Your task to perform on an android device: Open calendar and show me the fourth week of next month Image 0: 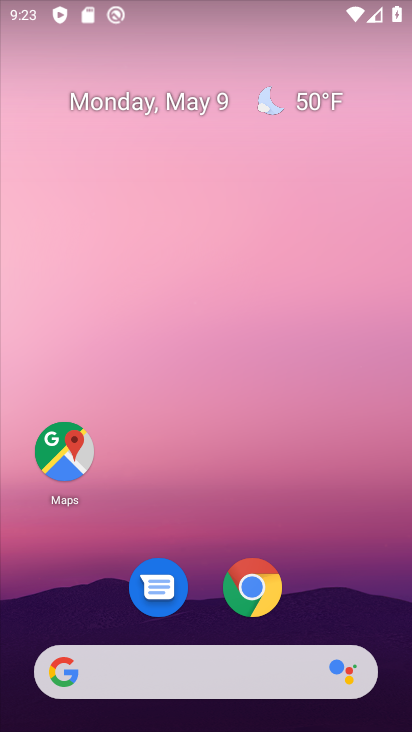
Step 0: drag from (201, 729) to (207, 71)
Your task to perform on an android device: Open calendar and show me the fourth week of next month Image 1: 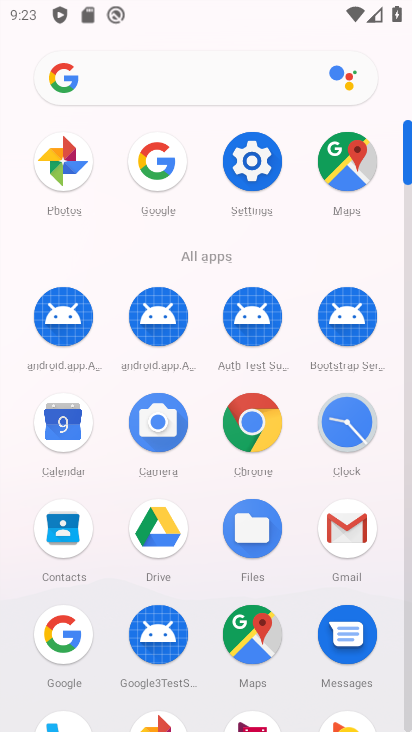
Step 1: click (67, 421)
Your task to perform on an android device: Open calendar and show me the fourth week of next month Image 2: 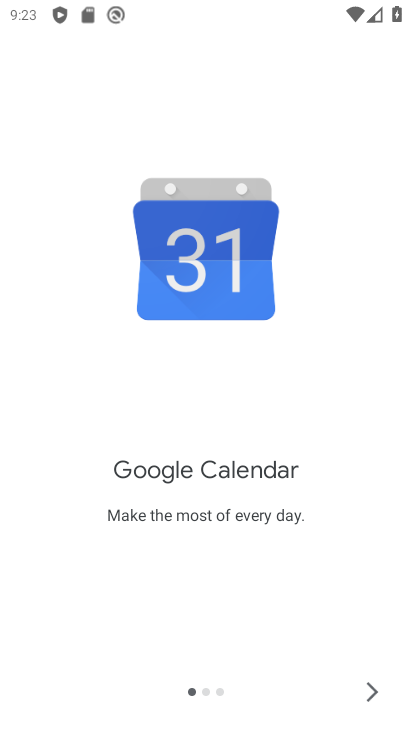
Step 2: click (377, 694)
Your task to perform on an android device: Open calendar and show me the fourth week of next month Image 3: 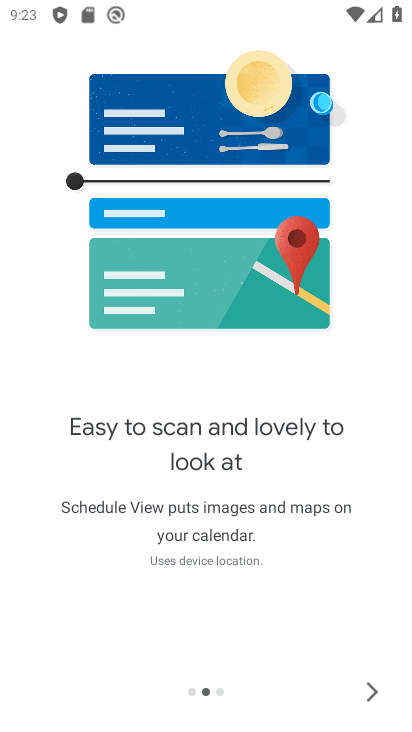
Step 3: click (374, 694)
Your task to perform on an android device: Open calendar and show me the fourth week of next month Image 4: 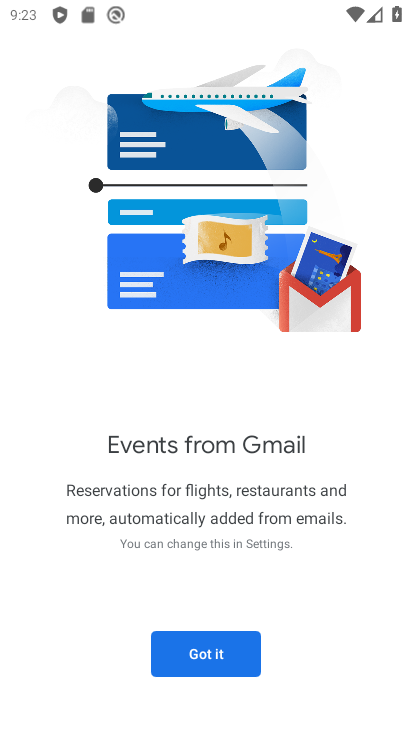
Step 4: click (214, 655)
Your task to perform on an android device: Open calendar and show me the fourth week of next month Image 5: 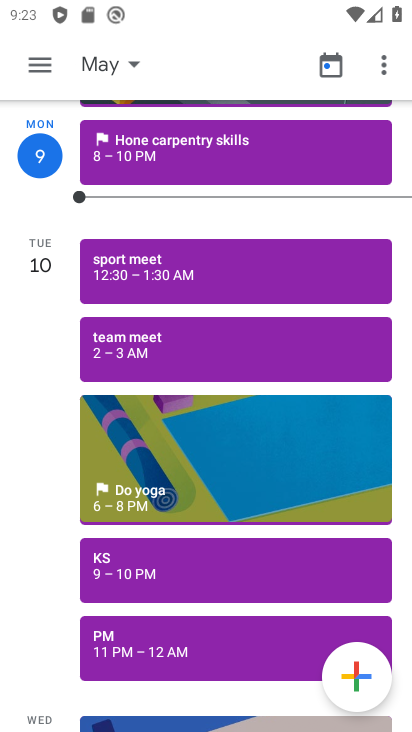
Step 5: click (104, 65)
Your task to perform on an android device: Open calendar and show me the fourth week of next month Image 6: 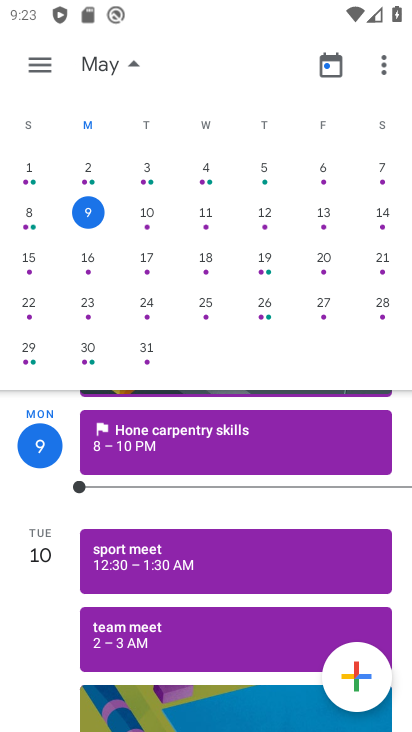
Step 6: drag from (366, 249) to (5, 222)
Your task to perform on an android device: Open calendar and show me the fourth week of next month Image 7: 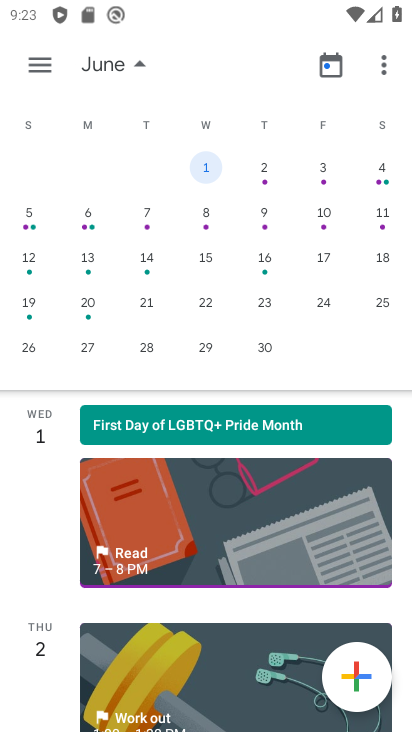
Step 7: click (86, 340)
Your task to perform on an android device: Open calendar and show me the fourth week of next month Image 8: 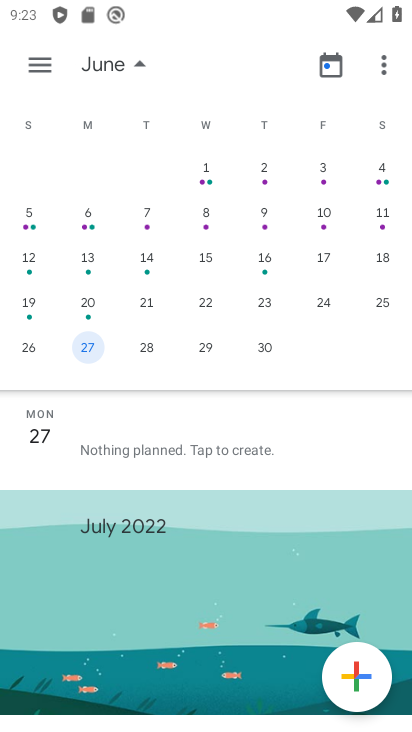
Step 8: click (43, 64)
Your task to perform on an android device: Open calendar and show me the fourth week of next month Image 9: 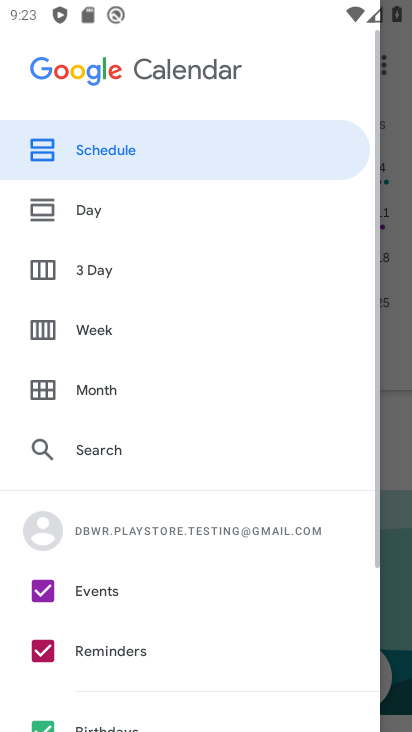
Step 9: click (96, 328)
Your task to perform on an android device: Open calendar and show me the fourth week of next month Image 10: 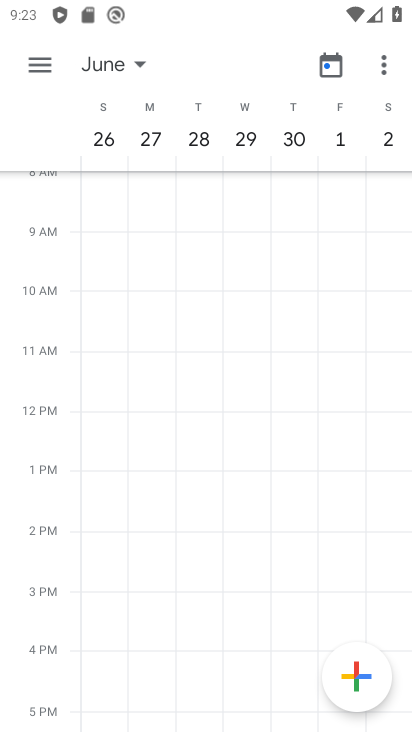
Step 10: task complete